Your task to perform on an android device: delete location history Image 0: 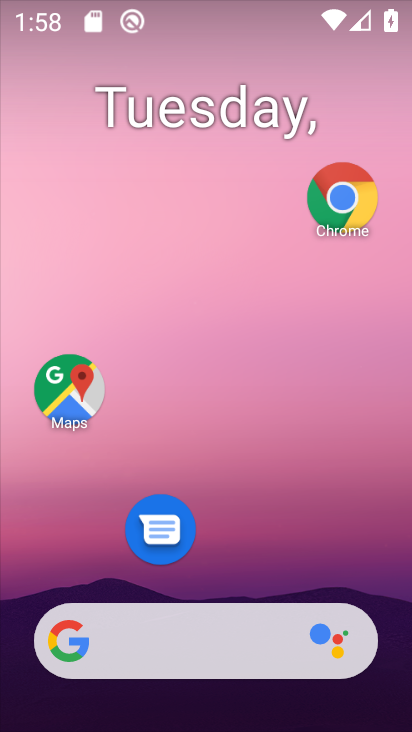
Step 0: drag from (231, 513) to (309, 63)
Your task to perform on an android device: delete location history Image 1: 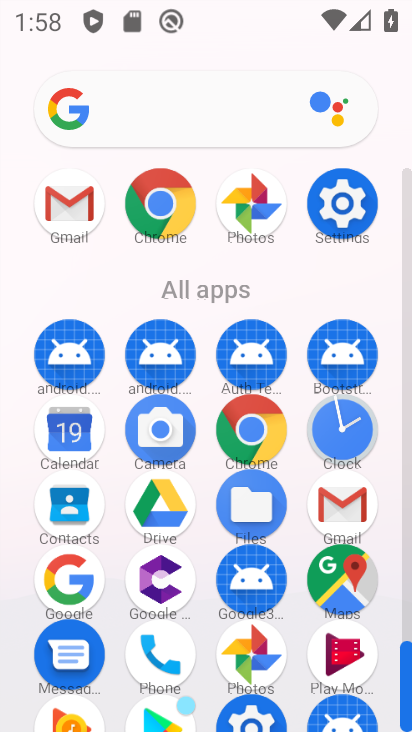
Step 1: click (339, 595)
Your task to perform on an android device: delete location history Image 2: 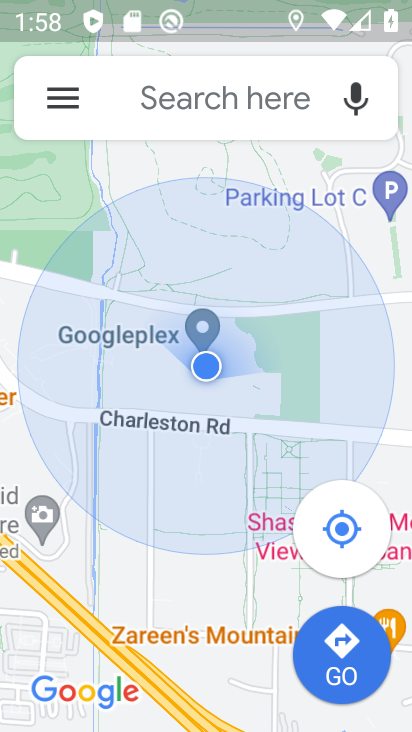
Step 2: click (67, 96)
Your task to perform on an android device: delete location history Image 3: 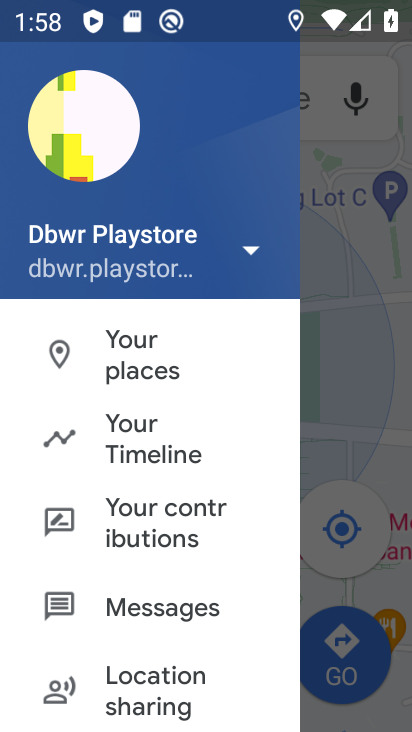
Step 3: click (172, 444)
Your task to perform on an android device: delete location history Image 4: 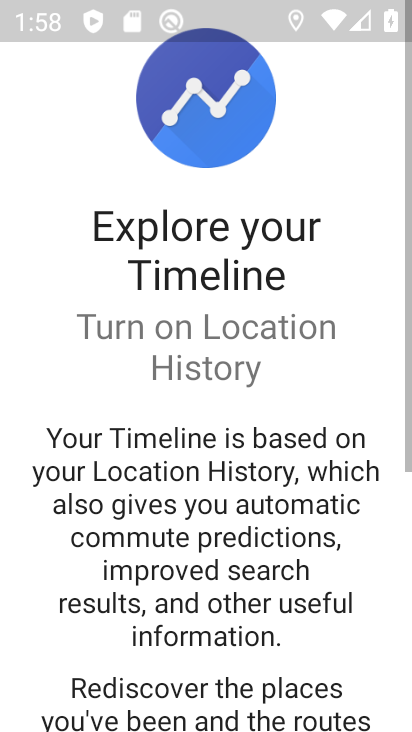
Step 4: drag from (227, 631) to (382, 57)
Your task to perform on an android device: delete location history Image 5: 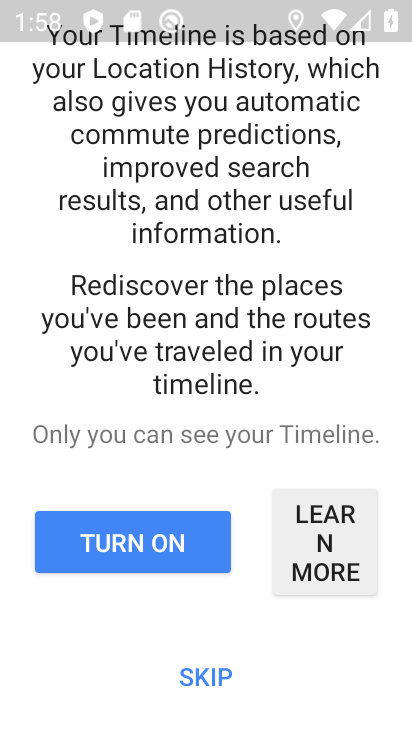
Step 5: click (199, 691)
Your task to perform on an android device: delete location history Image 6: 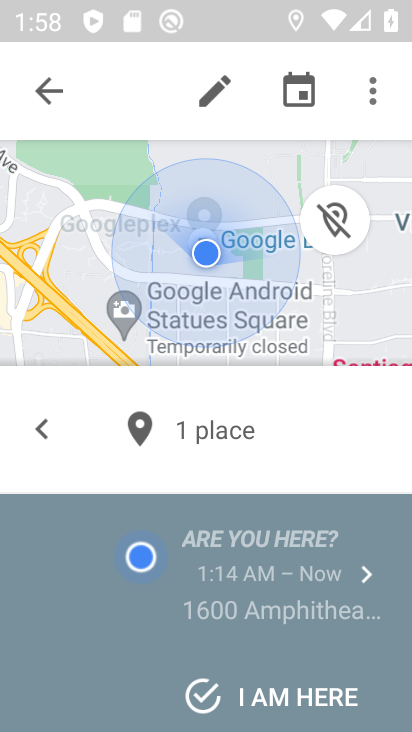
Step 6: click (370, 90)
Your task to perform on an android device: delete location history Image 7: 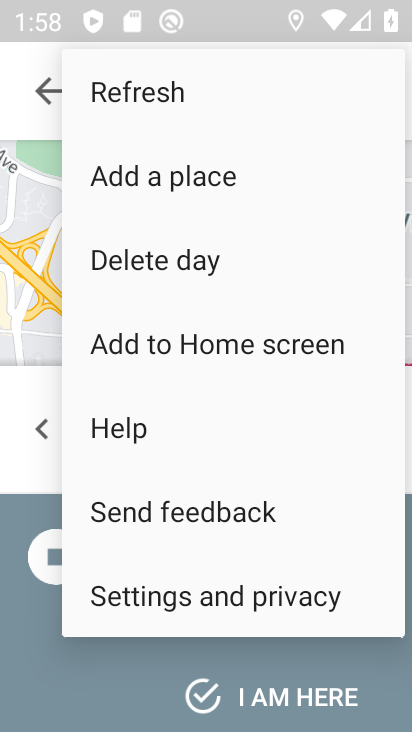
Step 7: click (227, 607)
Your task to perform on an android device: delete location history Image 8: 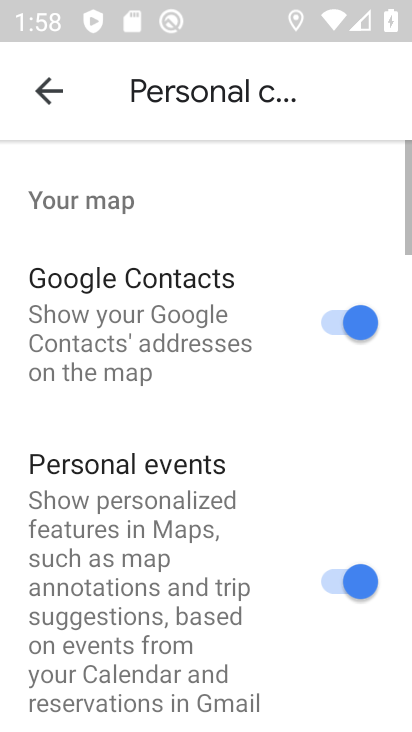
Step 8: drag from (195, 636) to (326, 54)
Your task to perform on an android device: delete location history Image 9: 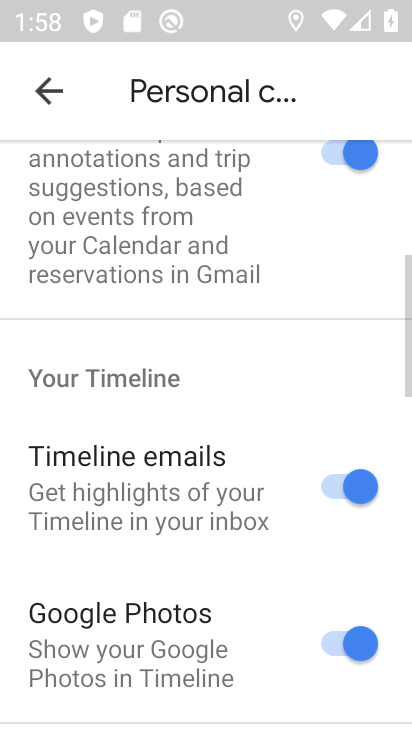
Step 9: drag from (155, 601) to (294, 114)
Your task to perform on an android device: delete location history Image 10: 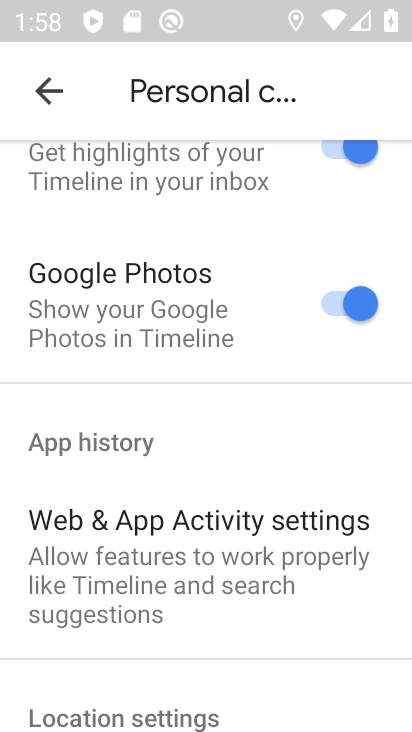
Step 10: drag from (182, 635) to (321, 91)
Your task to perform on an android device: delete location history Image 11: 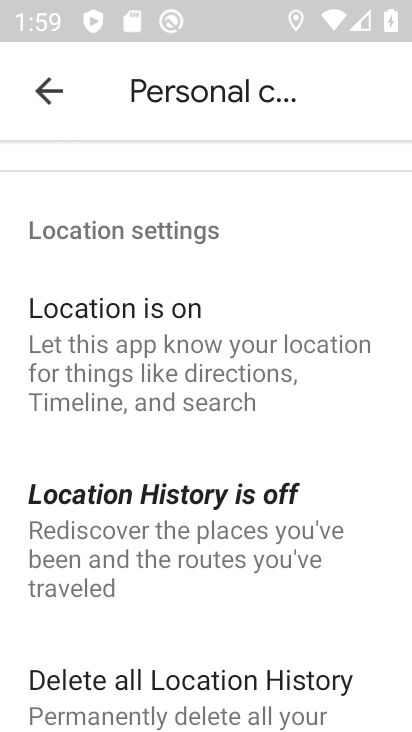
Step 11: click (157, 681)
Your task to perform on an android device: delete location history Image 12: 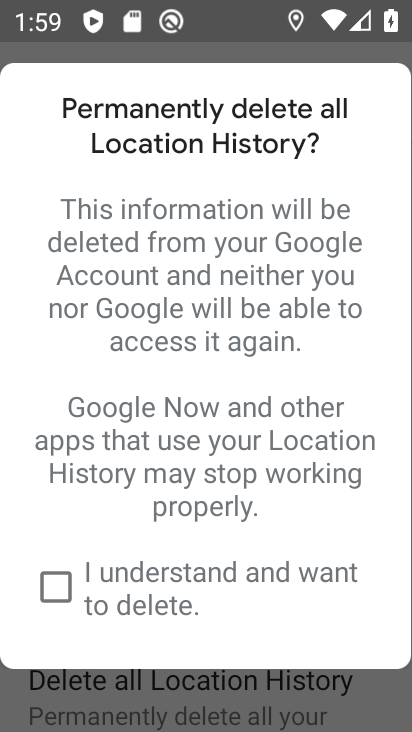
Step 12: click (77, 600)
Your task to perform on an android device: delete location history Image 13: 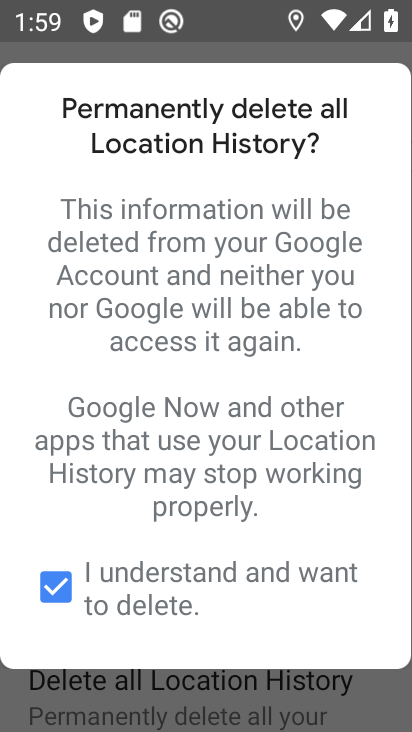
Step 13: drag from (213, 572) to (312, 150)
Your task to perform on an android device: delete location history Image 14: 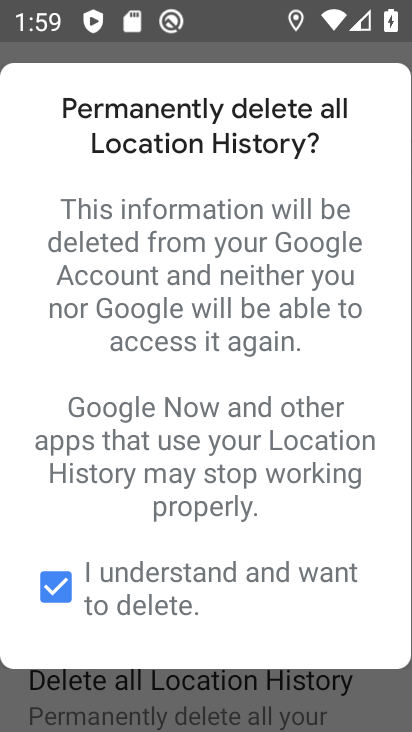
Step 14: click (249, 420)
Your task to perform on an android device: delete location history Image 15: 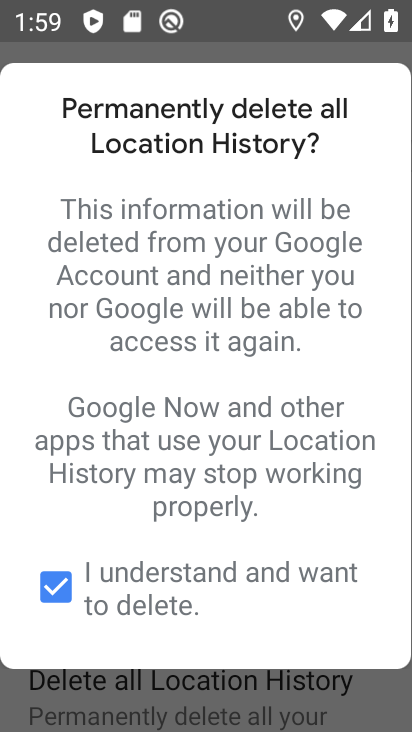
Step 15: task complete